Your task to perform on an android device: Open Chrome and go to the settings page Image 0: 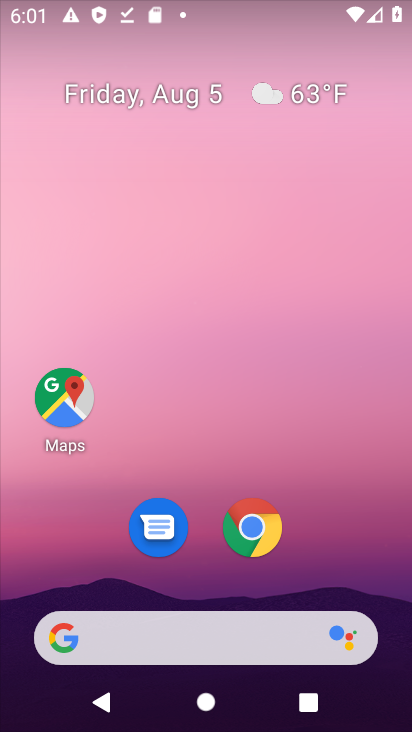
Step 0: drag from (165, 563) to (355, 4)
Your task to perform on an android device: Open Chrome and go to the settings page Image 1: 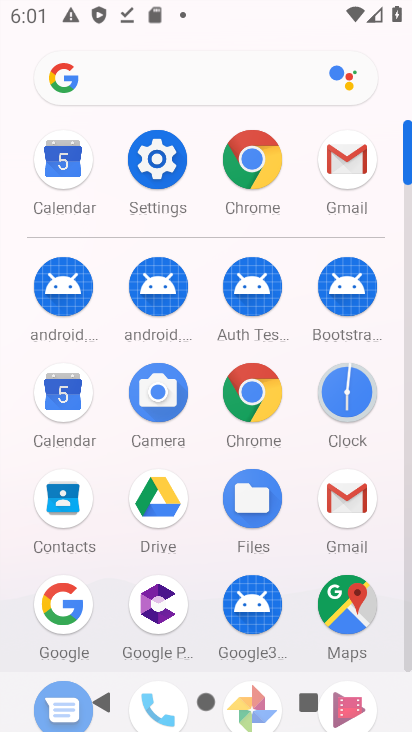
Step 1: click (160, 141)
Your task to perform on an android device: Open Chrome and go to the settings page Image 2: 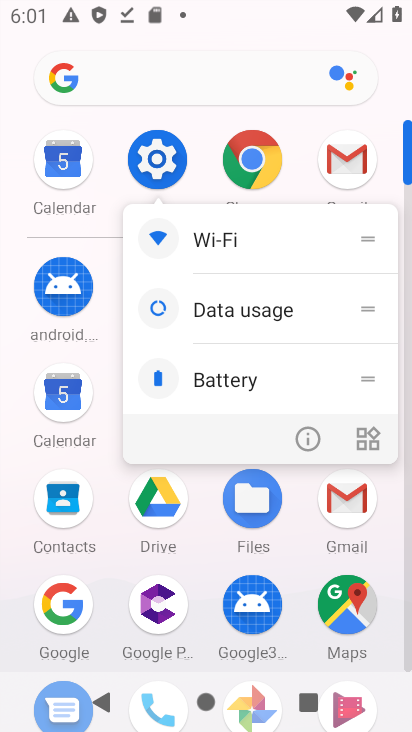
Step 2: click (305, 430)
Your task to perform on an android device: Open Chrome and go to the settings page Image 3: 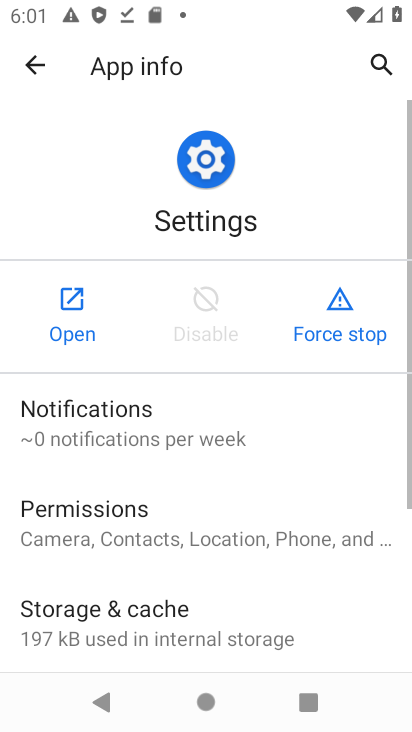
Step 3: click (81, 301)
Your task to perform on an android device: Open Chrome and go to the settings page Image 4: 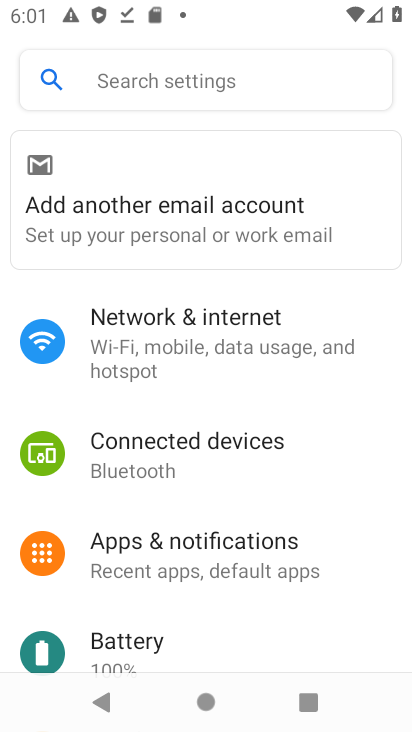
Step 4: press home button
Your task to perform on an android device: Open Chrome and go to the settings page Image 5: 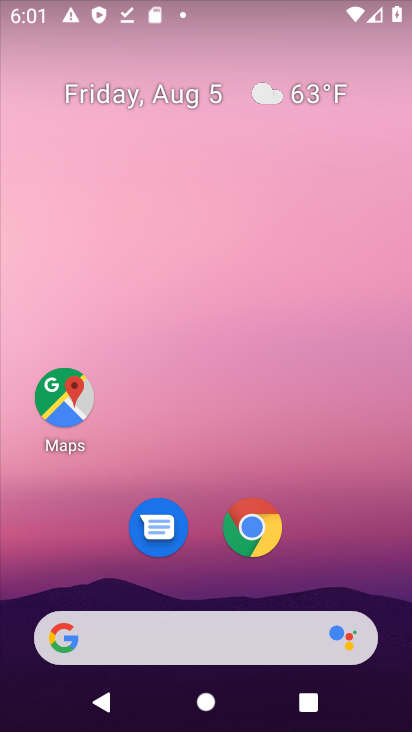
Step 5: click (265, 530)
Your task to perform on an android device: Open Chrome and go to the settings page Image 6: 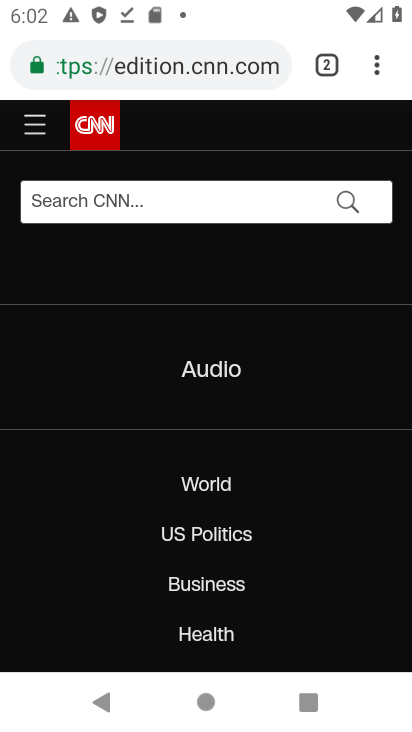
Step 6: drag from (377, 52) to (163, 579)
Your task to perform on an android device: Open Chrome and go to the settings page Image 7: 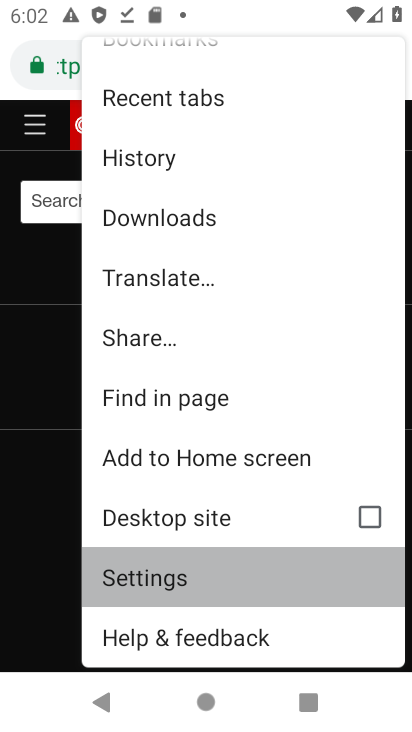
Step 7: click (163, 579)
Your task to perform on an android device: Open Chrome and go to the settings page Image 8: 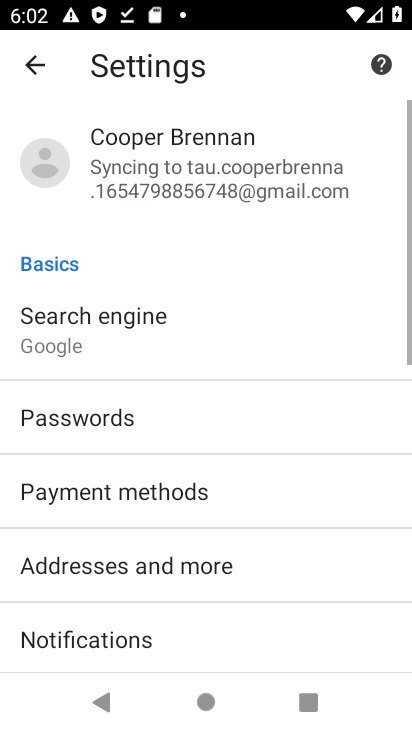
Step 8: task complete